Your task to perform on an android device: Open the stopwatch Image 0: 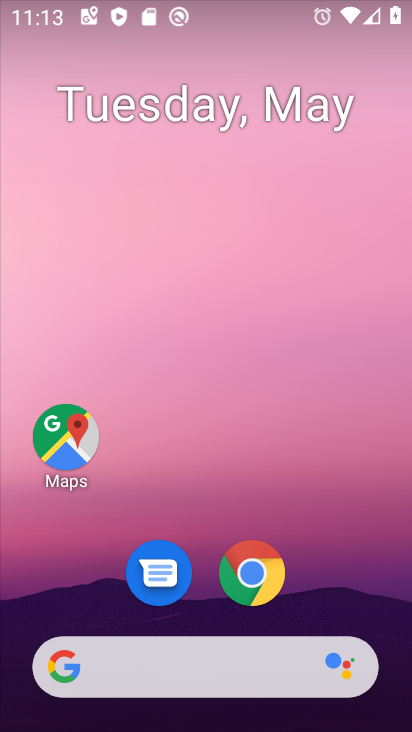
Step 0: drag from (300, 691) to (336, 128)
Your task to perform on an android device: Open the stopwatch Image 1: 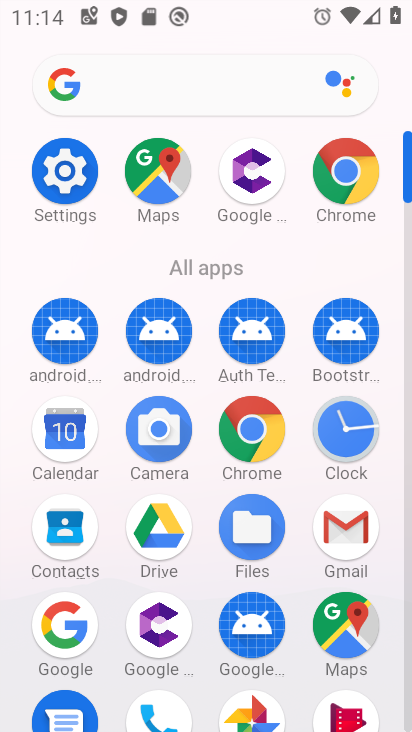
Step 1: click (346, 445)
Your task to perform on an android device: Open the stopwatch Image 2: 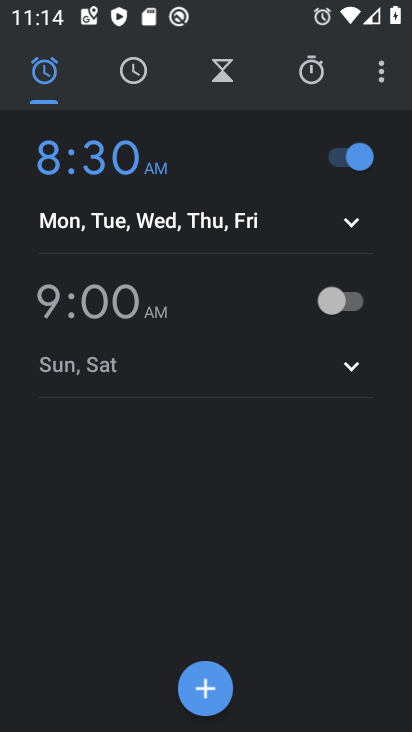
Step 2: click (311, 80)
Your task to perform on an android device: Open the stopwatch Image 3: 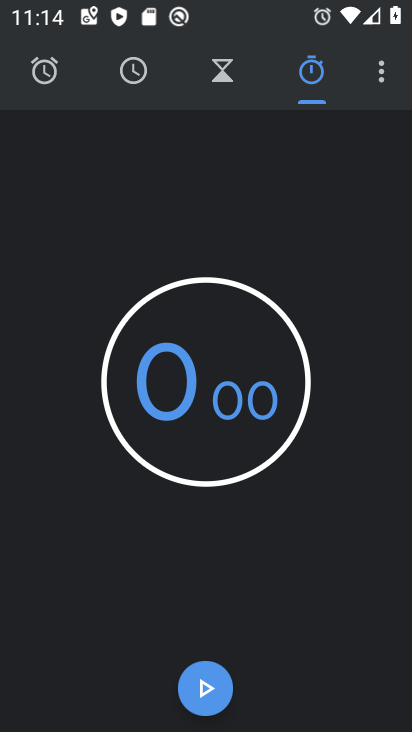
Step 3: click (205, 680)
Your task to perform on an android device: Open the stopwatch Image 4: 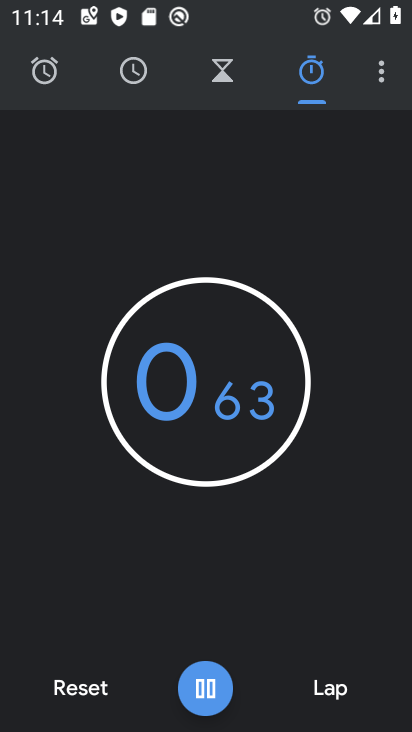
Step 4: click (205, 680)
Your task to perform on an android device: Open the stopwatch Image 5: 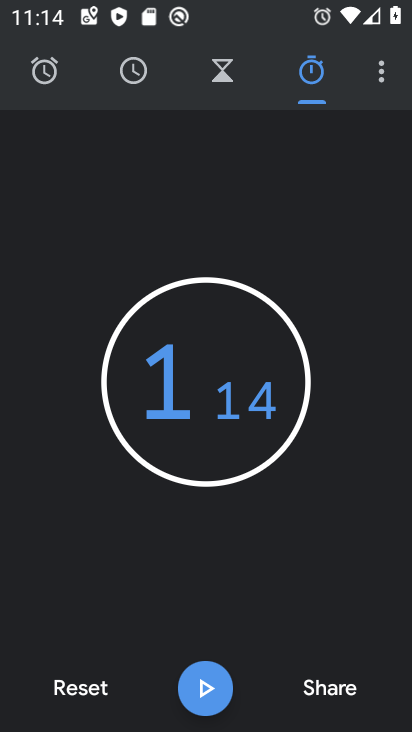
Step 5: task complete